Your task to perform on an android device: Toggle the flashlight Image 0: 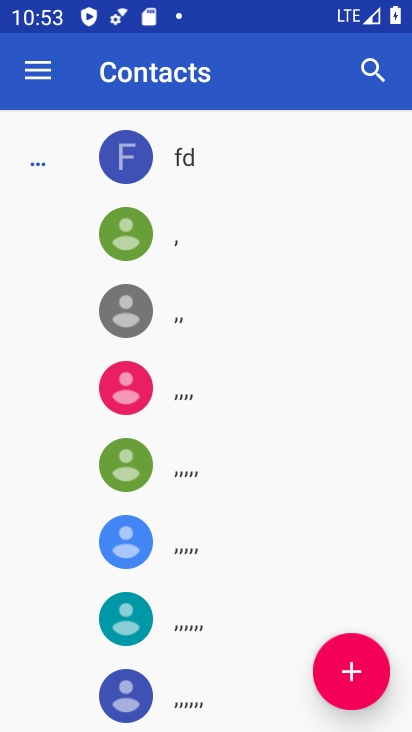
Step 0: press home button
Your task to perform on an android device: Toggle the flashlight Image 1: 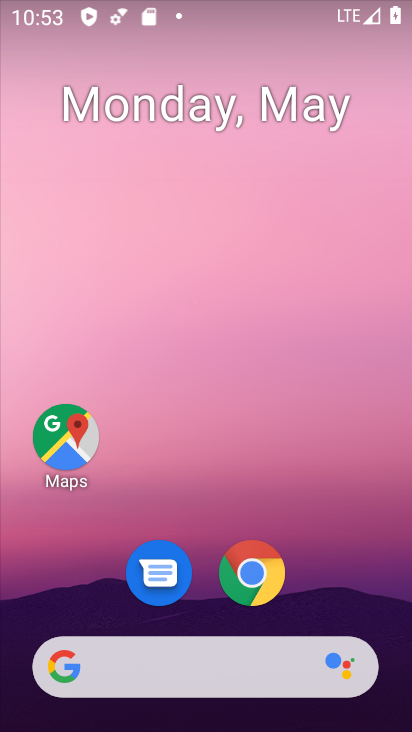
Step 1: drag from (214, 13) to (223, 419)
Your task to perform on an android device: Toggle the flashlight Image 2: 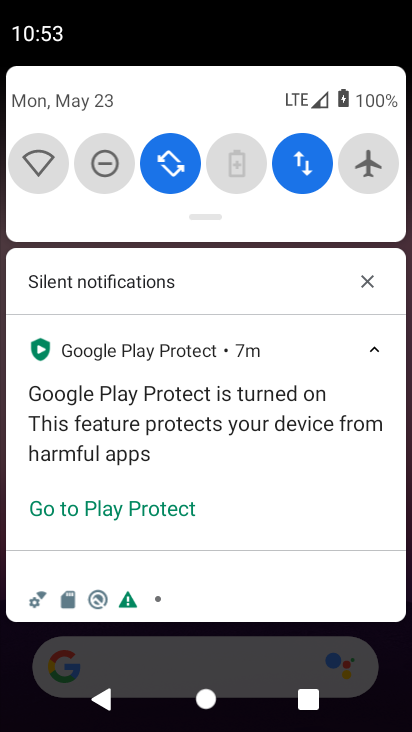
Step 2: drag from (235, 201) to (248, 580)
Your task to perform on an android device: Toggle the flashlight Image 3: 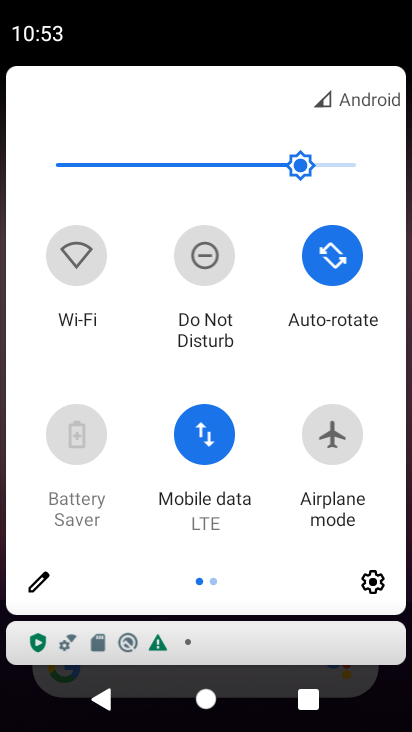
Step 3: drag from (378, 372) to (11, 413)
Your task to perform on an android device: Toggle the flashlight Image 4: 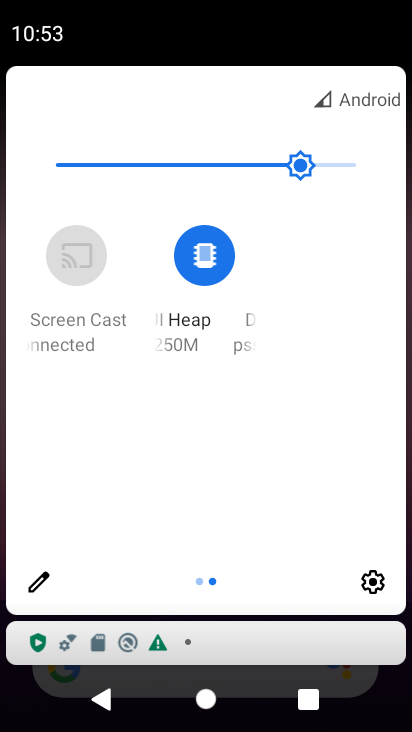
Step 4: click (38, 583)
Your task to perform on an android device: Toggle the flashlight Image 5: 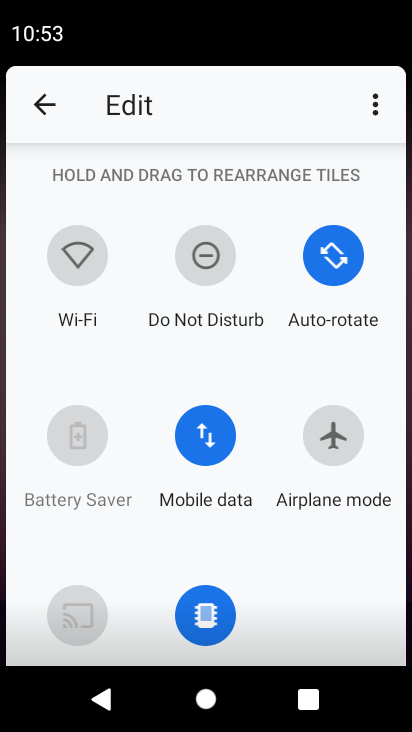
Step 5: task complete